Your task to perform on an android device: change your default location settings in chrome Image 0: 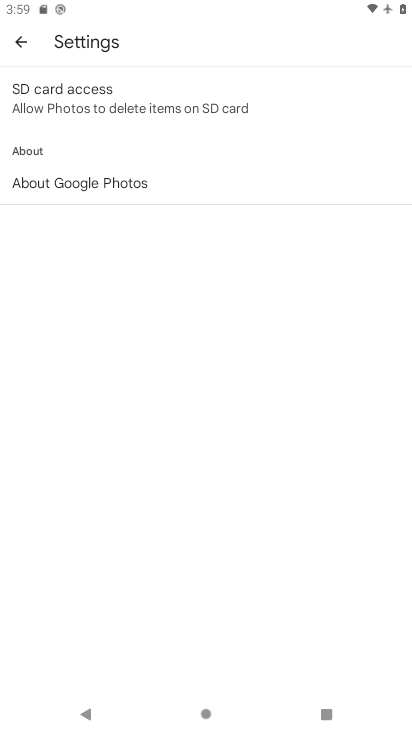
Step 0: press home button
Your task to perform on an android device: change your default location settings in chrome Image 1: 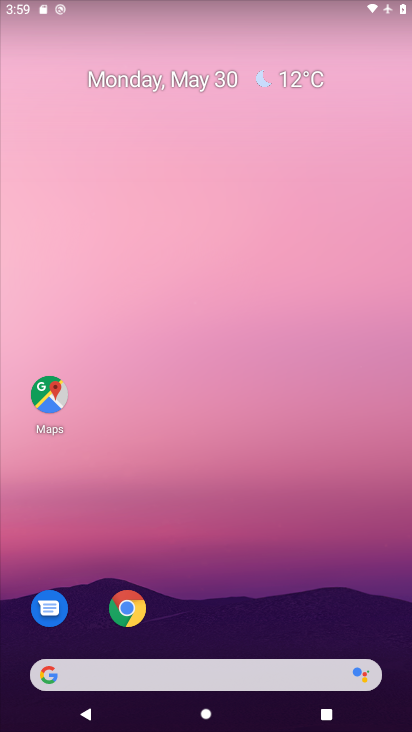
Step 1: click (136, 600)
Your task to perform on an android device: change your default location settings in chrome Image 2: 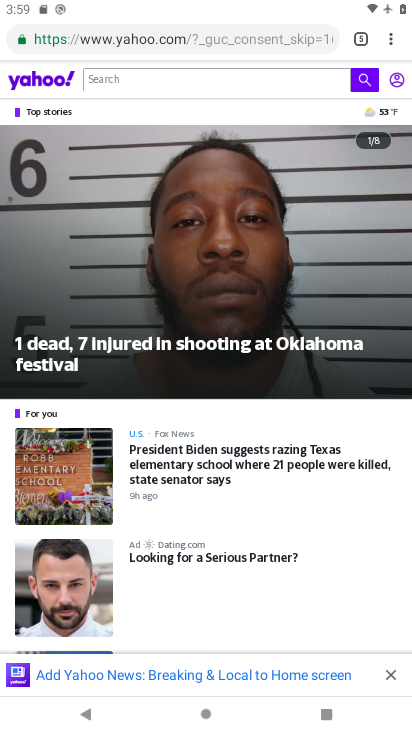
Step 2: click (387, 42)
Your task to perform on an android device: change your default location settings in chrome Image 3: 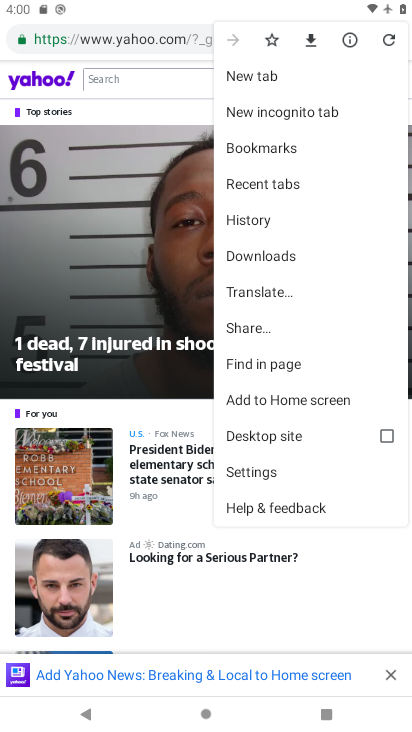
Step 3: click (283, 474)
Your task to perform on an android device: change your default location settings in chrome Image 4: 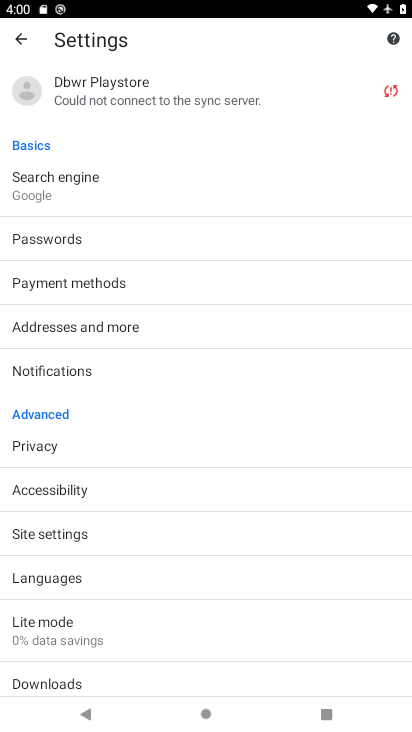
Step 4: click (79, 539)
Your task to perform on an android device: change your default location settings in chrome Image 5: 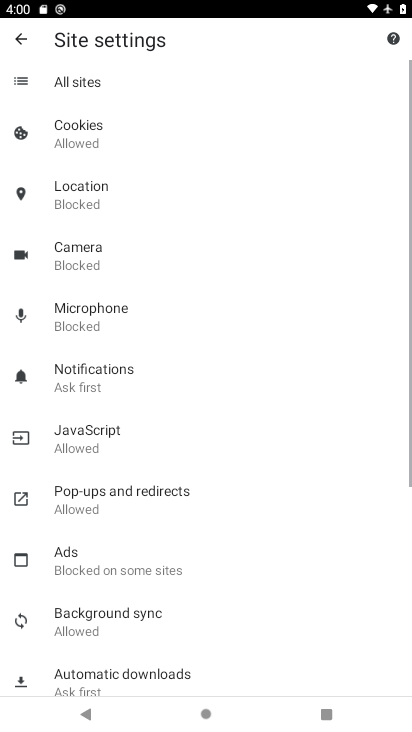
Step 5: click (144, 200)
Your task to perform on an android device: change your default location settings in chrome Image 6: 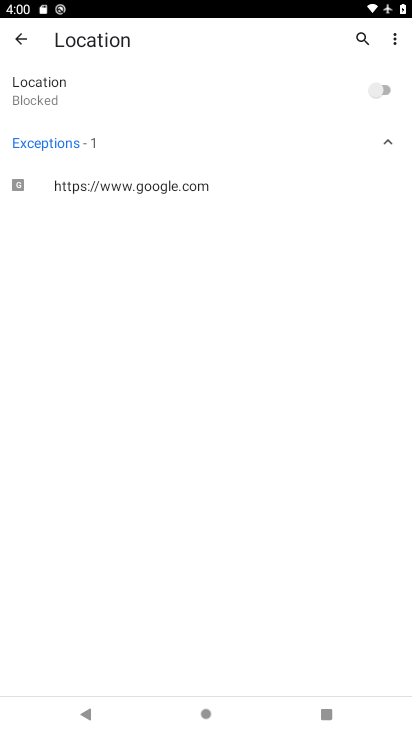
Step 6: click (399, 89)
Your task to perform on an android device: change your default location settings in chrome Image 7: 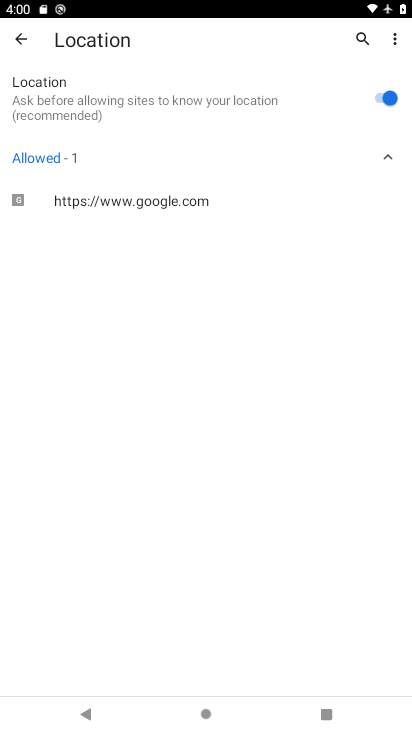
Step 7: task complete